Your task to perform on an android device: toggle location history Image 0: 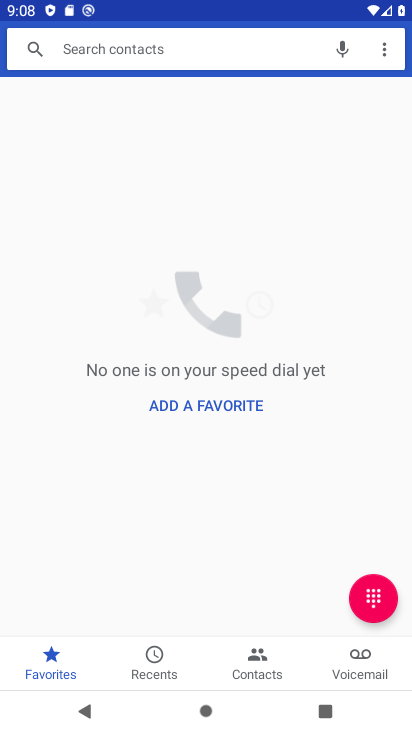
Step 0: press back button
Your task to perform on an android device: toggle location history Image 1: 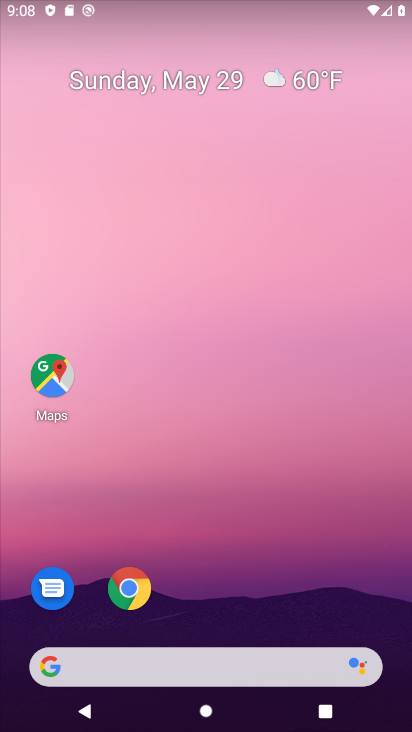
Step 1: drag from (270, 582) to (280, 94)
Your task to perform on an android device: toggle location history Image 2: 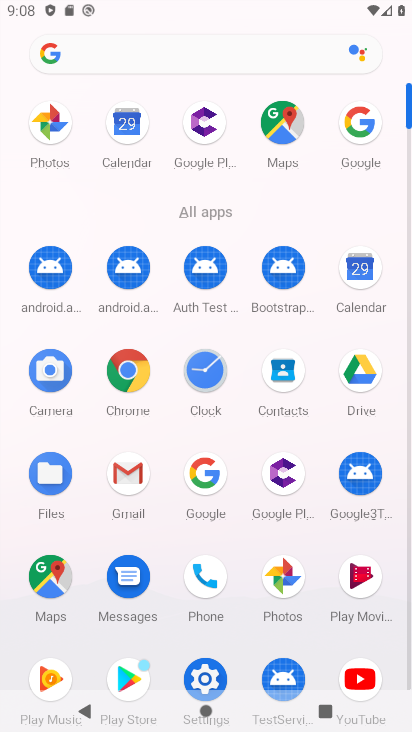
Step 2: drag from (221, 519) to (253, 388)
Your task to perform on an android device: toggle location history Image 3: 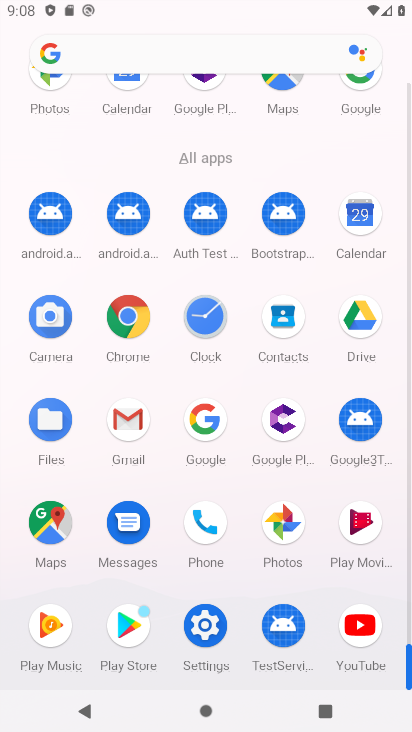
Step 3: click (205, 622)
Your task to perform on an android device: toggle location history Image 4: 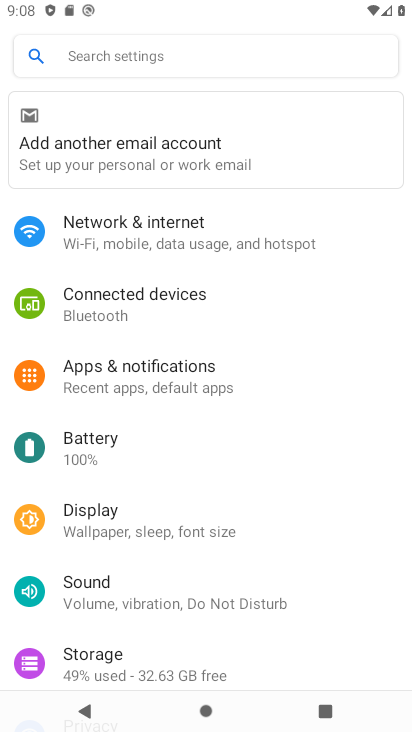
Step 4: drag from (144, 488) to (184, 400)
Your task to perform on an android device: toggle location history Image 5: 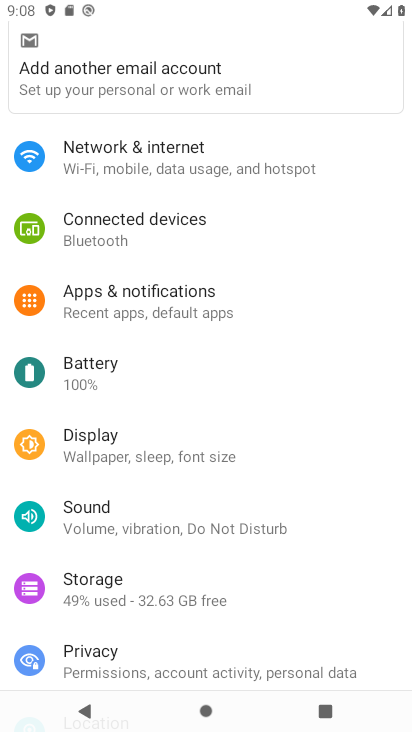
Step 5: drag from (127, 562) to (181, 488)
Your task to perform on an android device: toggle location history Image 6: 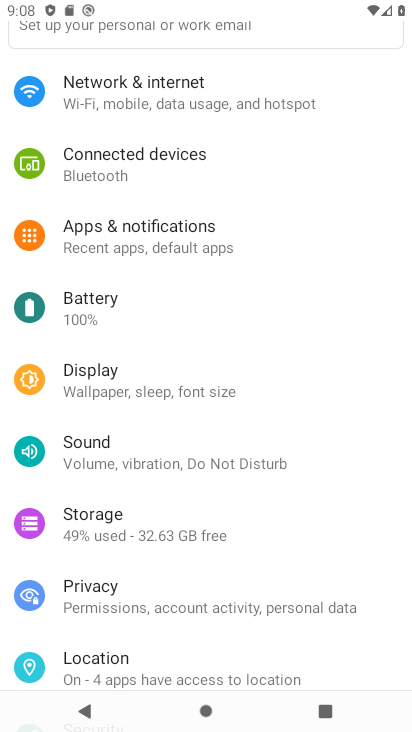
Step 6: drag from (125, 565) to (197, 470)
Your task to perform on an android device: toggle location history Image 7: 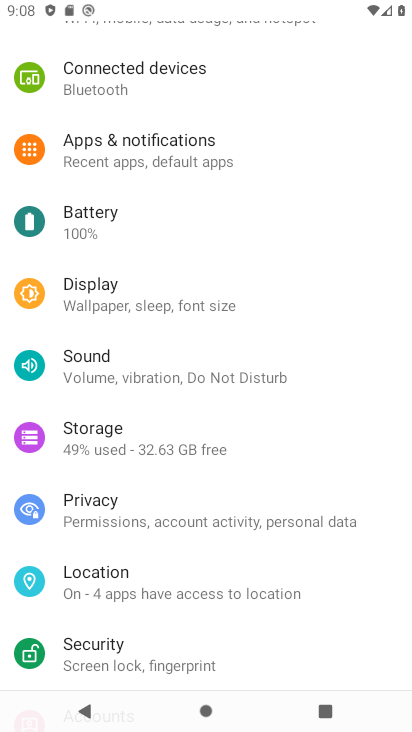
Step 7: click (111, 580)
Your task to perform on an android device: toggle location history Image 8: 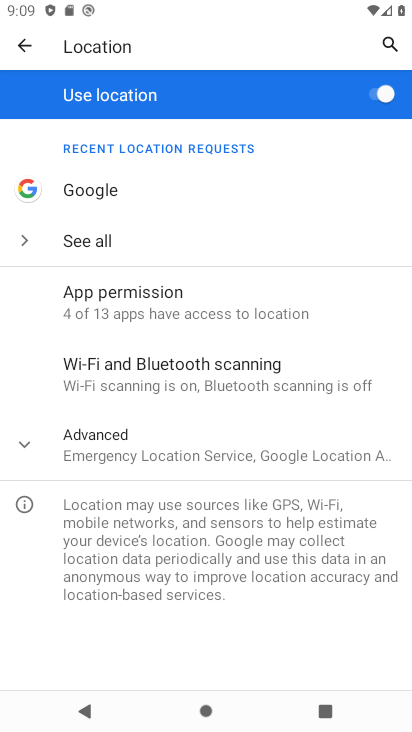
Step 8: click (164, 465)
Your task to perform on an android device: toggle location history Image 9: 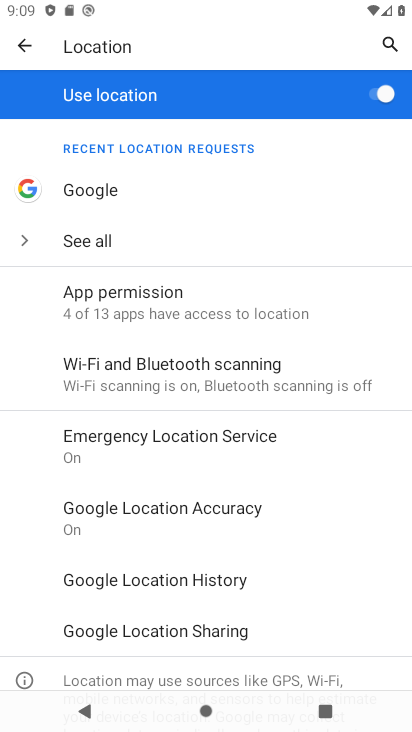
Step 9: click (157, 579)
Your task to perform on an android device: toggle location history Image 10: 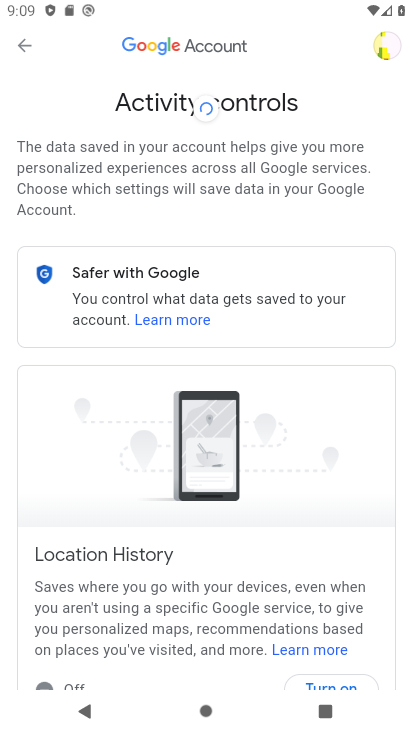
Step 10: drag from (150, 638) to (235, 506)
Your task to perform on an android device: toggle location history Image 11: 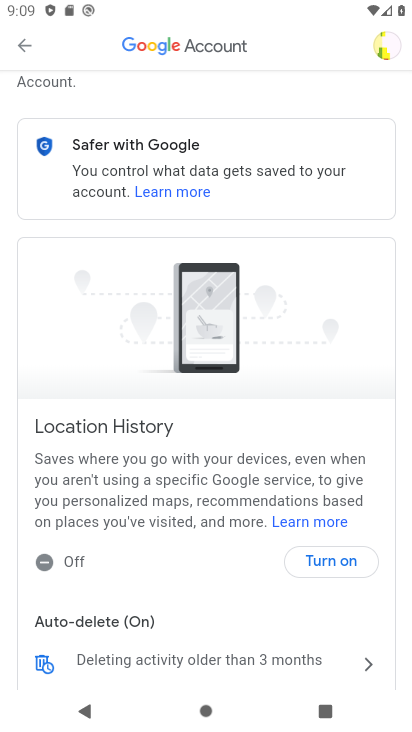
Step 11: click (323, 565)
Your task to perform on an android device: toggle location history Image 12: 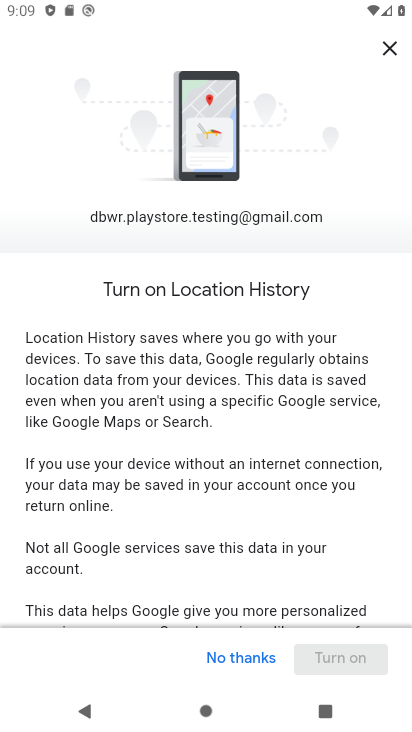
Step 12: drag from (315, 584) to (322, 487)
Your task to perform on an android device: toggle location history Image 13: 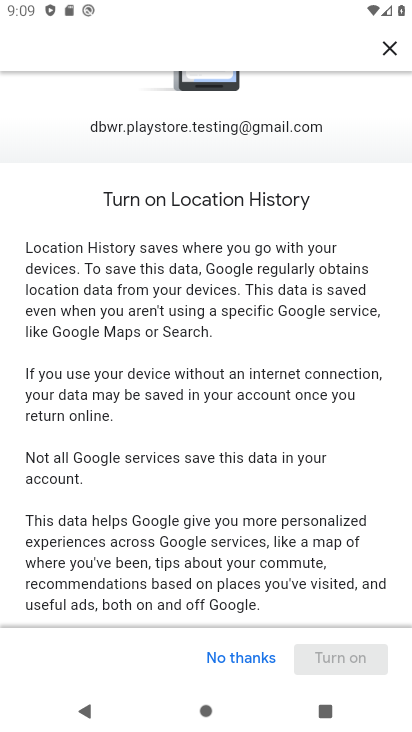
Step 13: drag from (246, 586) to (340, 431)
Your task to perform on an android device: toggle location history Image 14: 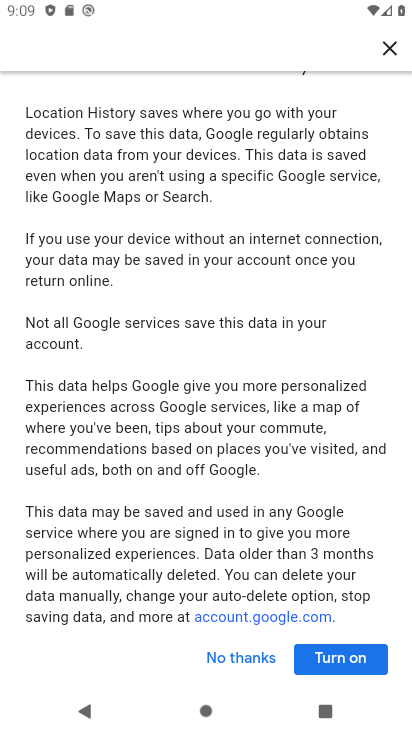
Step 14: click (347, 663)
Your task to perform on an android device: toggle location history Image 15: 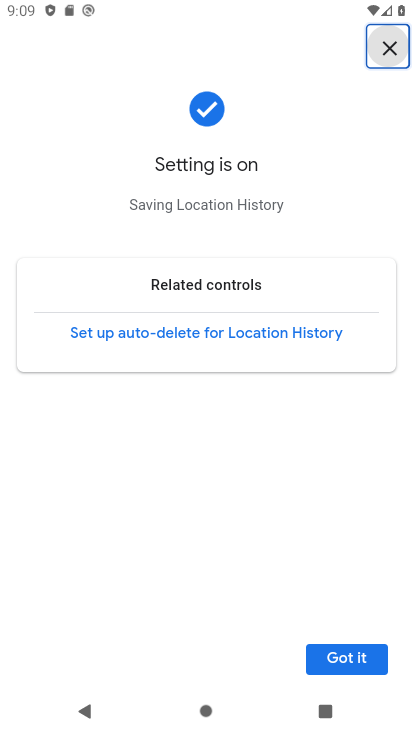
Step 15: click (347, 663)
Your task to perform on an android device: toggle location history Image 16: 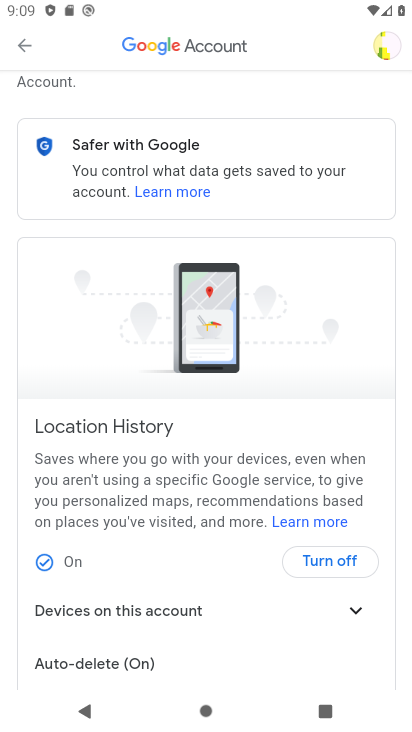
Step 16: task complete